Your task to perform on an android device: Toggle the flashlight Image 0: 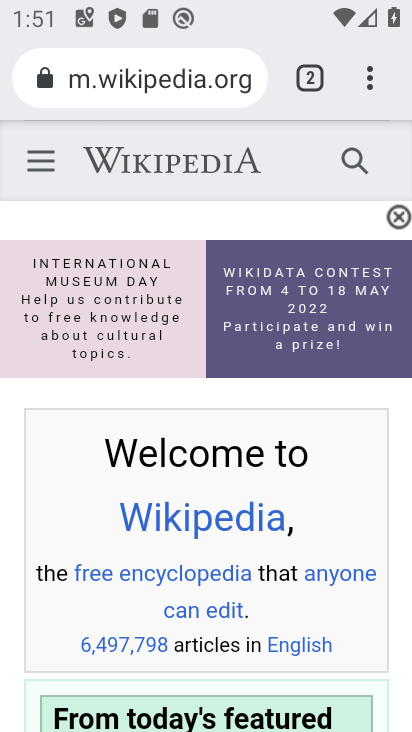
Step 0: press home button
Your task to perform on an android device: Toggle the flashlight Image 1: 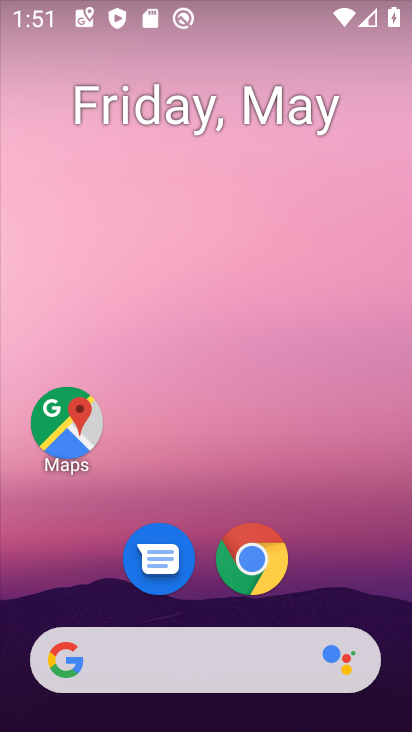
Step 1: drag from (363, 535) to (352, 175)
Your task to perform on an android device: Toggle the flashlight Image 2: 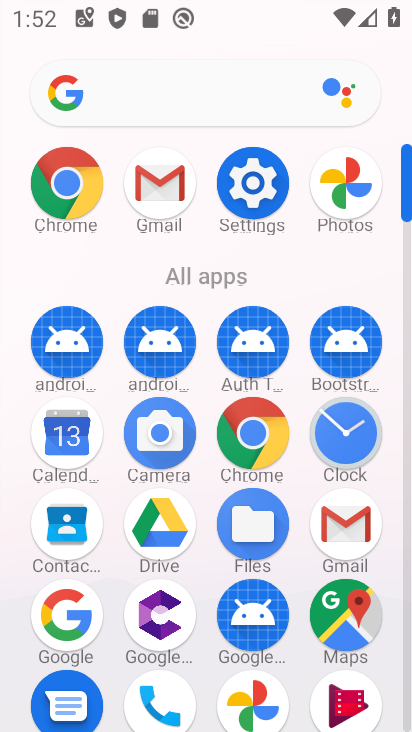
Step 2: click (238, 192)
Your task to perform on an android device: Toggle the flashlight Image 3: 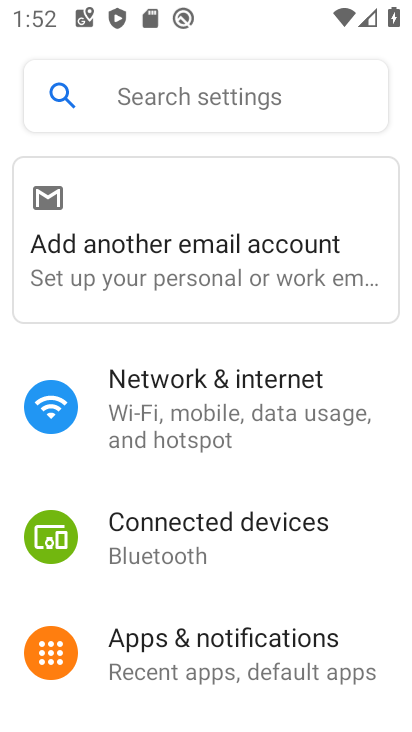
Step 3: click (145, 89)
Your task to perform on an android device: Toggle the flashlight Image 4: 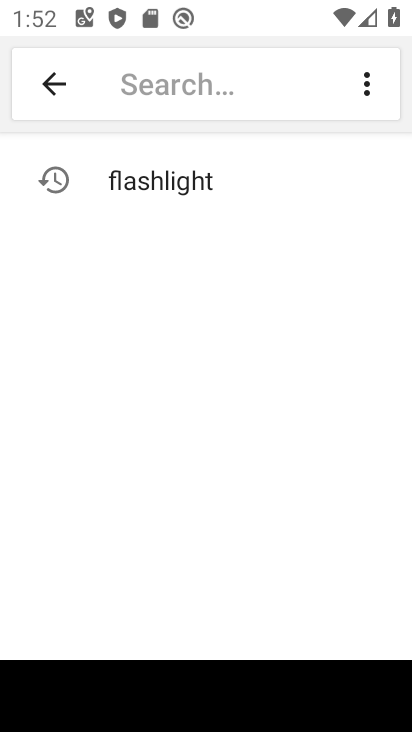
Step 4: type ""
Your task to perform on an android device: Toggle the flashlight Image 5: 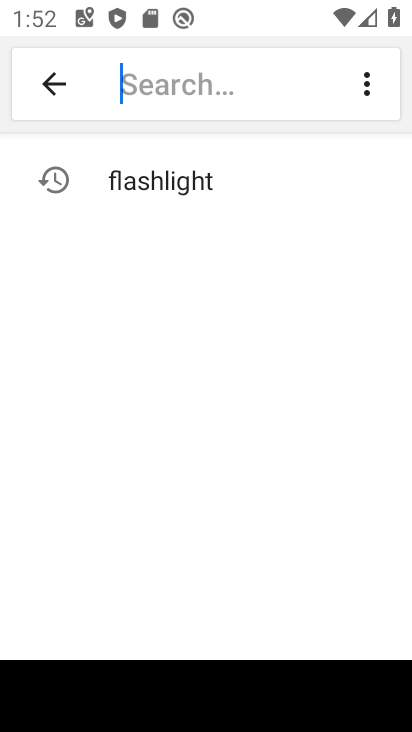
Step 5: click (165, 169)
Your task to perform on an android device: Toggle the flashlight Image 6: 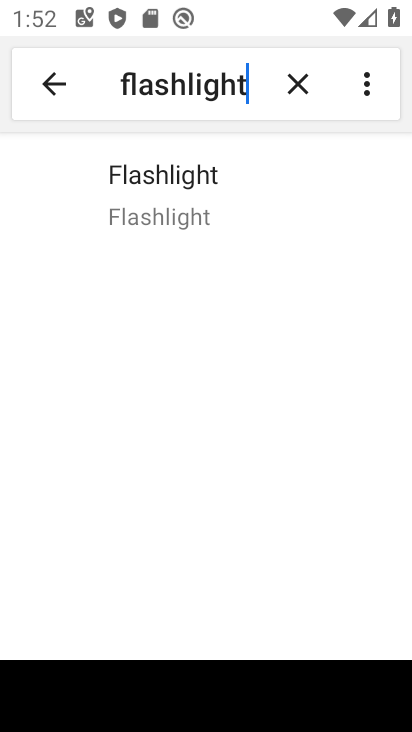
Step 6: task complete